Your task to perform on an android device: Open Google Image 0: 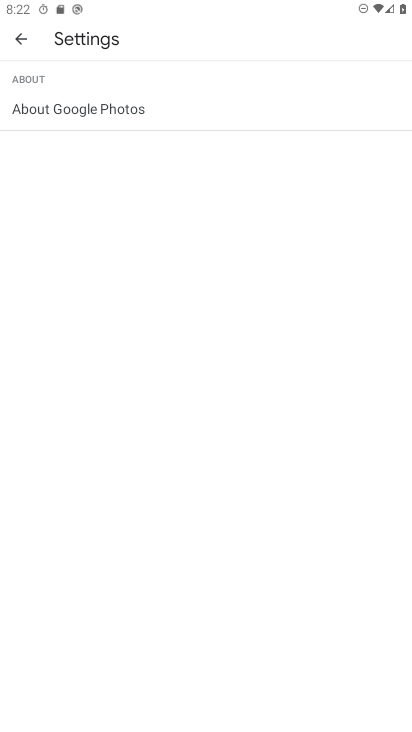
Step 0: press home button
Your task to perform on an android device: Open Google Image 1: 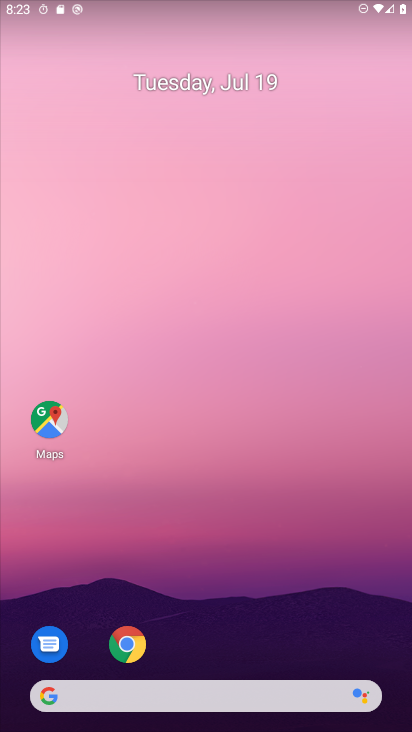
Step 1: click (118, 700)
Your task to perform on an android device: Open Google Image 2: 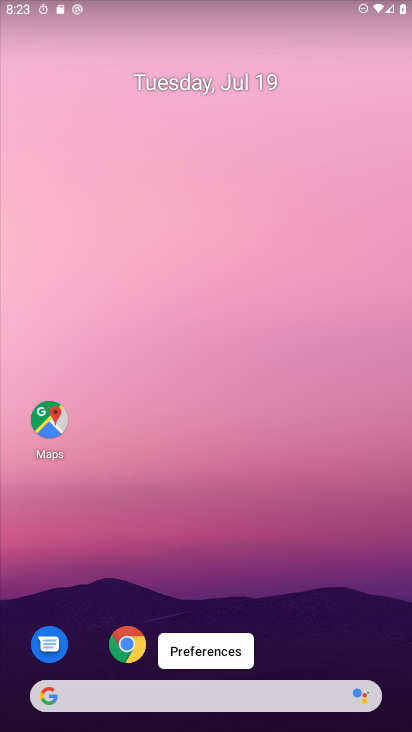
Step 2: click (121, 697)
Your task to perform on an android device: Open Google Image 3: 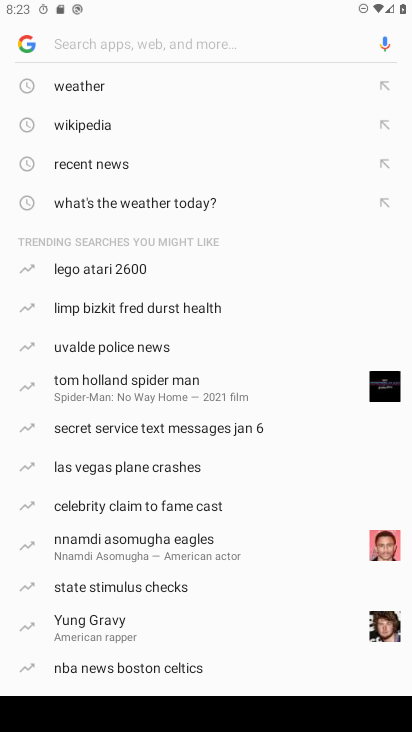
Step 3: task complete